Your task to perform on an android device: Open accessibility settings Image 0: 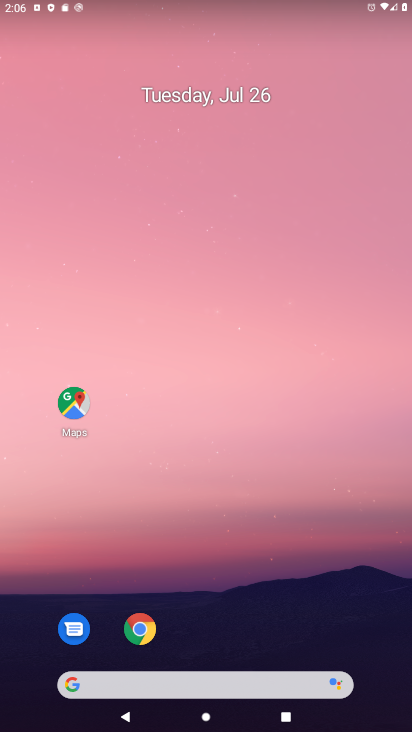
Step 0: drag from (376, 652) to (311, 147)
Your task to perform on an android device: Open accessibility settings Image 1: 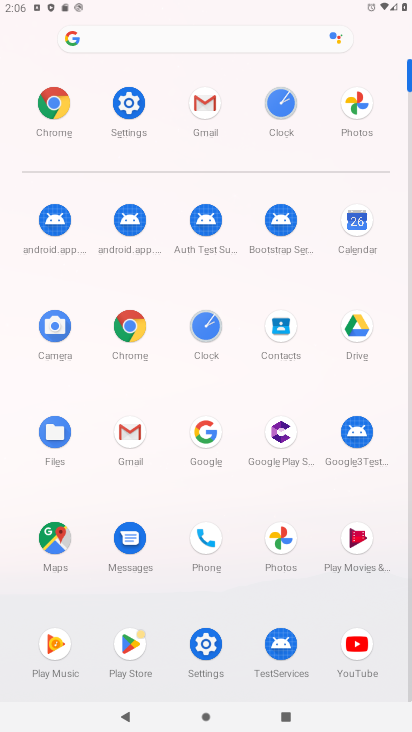
Step 1: click (206, 646)
Your task to perform on an android device: Open accessibility settings Image 2: 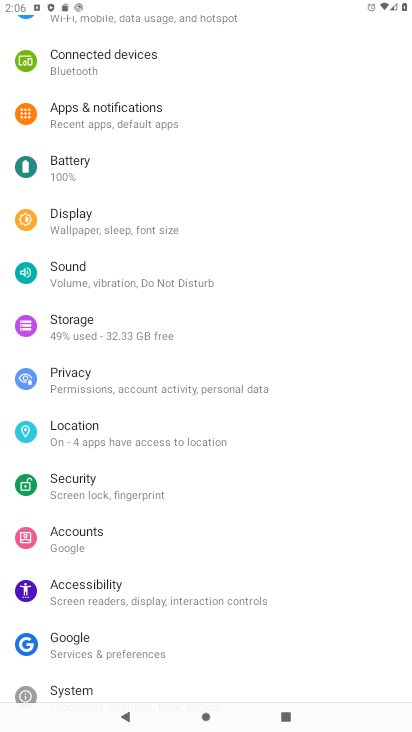
Step 2: click (88, 580)
Your task to perform on an android device: Open accessibility settings Image 3: 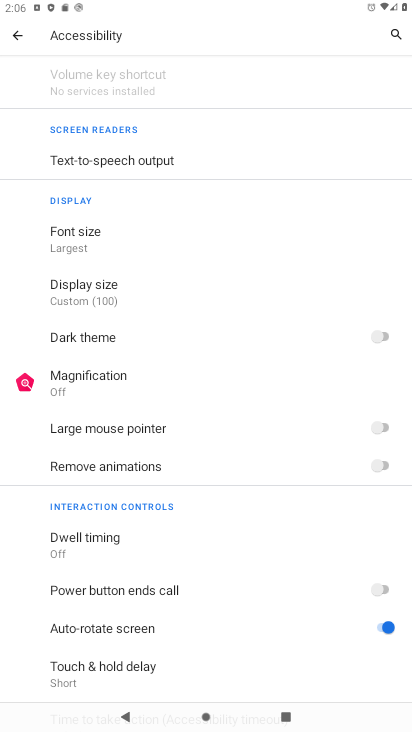
Step 3: task complete